Your task to perform on an android device: turn on the 12-hour format for clock Image 0: 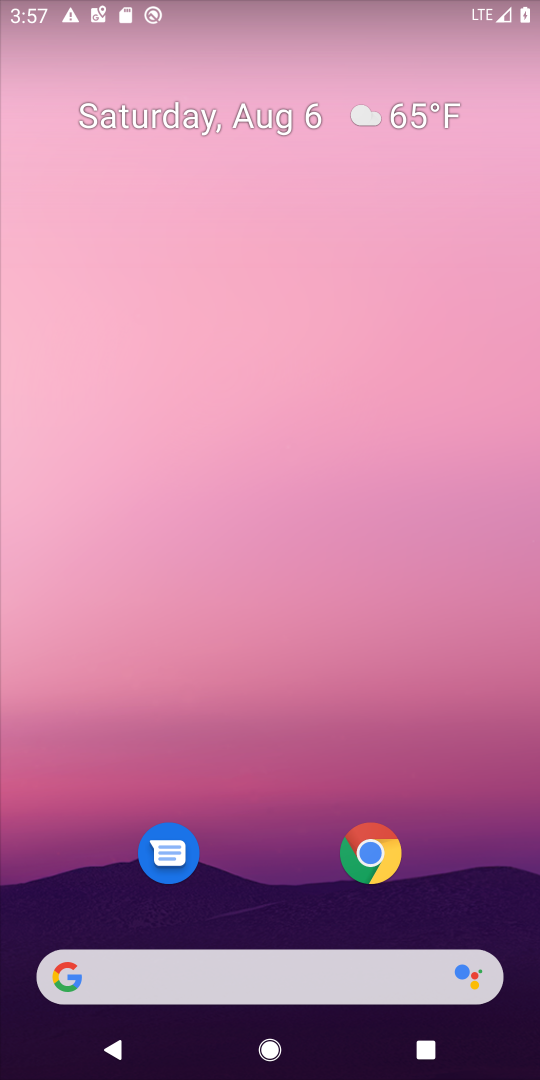
Step 0: drag from (266, 485) to (286, 58)
Your task to perform on an android device: turn on the 12-hour format for clock Image 1: 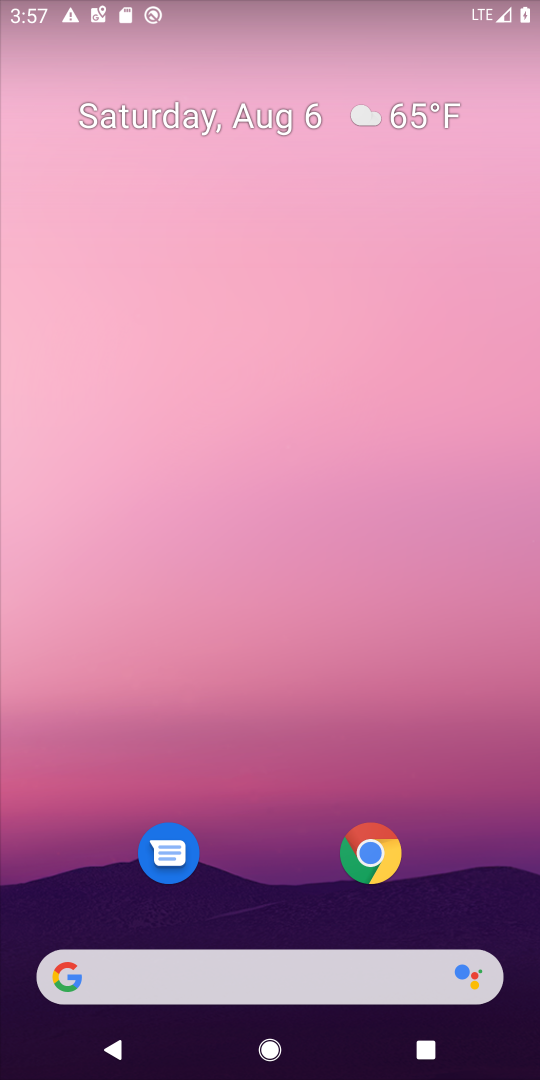
Step 1: drag from (279, 936) to (252, 46)
Your task to perform on an android device: turn on the 12-hour format for clock Image 2: 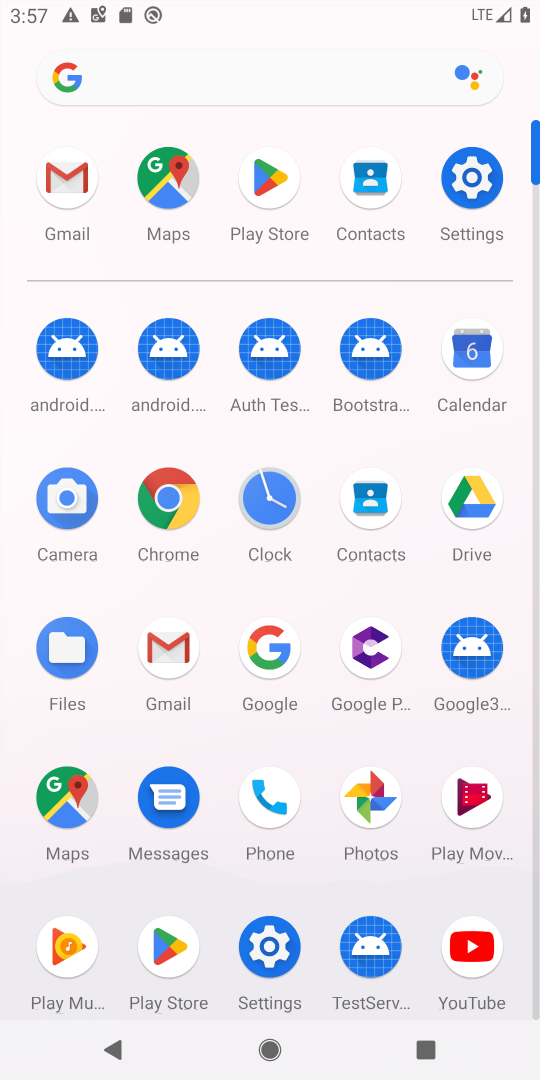
Step 2: click (270, 496)
Your task to perform on an android device: turn on the 12-hour format for clock Image 3: 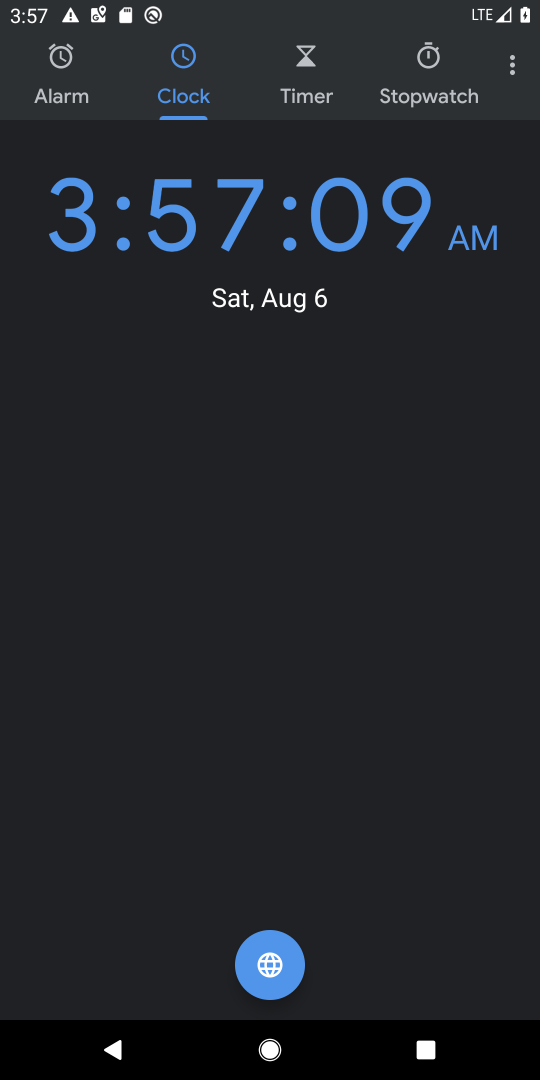
Step 3: click (516, 59)
Your task to perform on an android device: turn on the 12-hour format for clock Image 4: 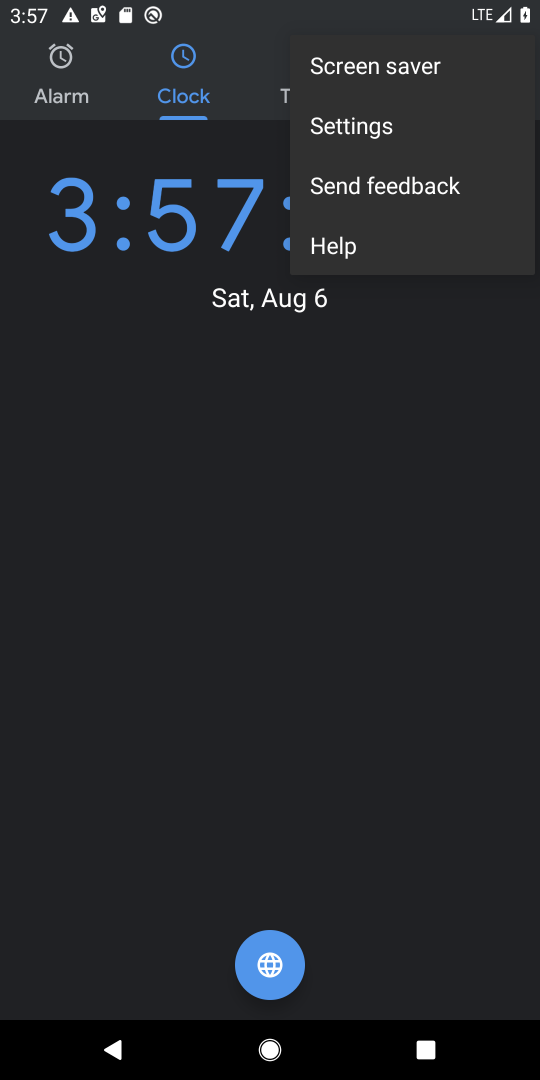
Step 4: click (373, 113)
Your task to perform on an android device: turn on the 12-hour format for clock Image 5: 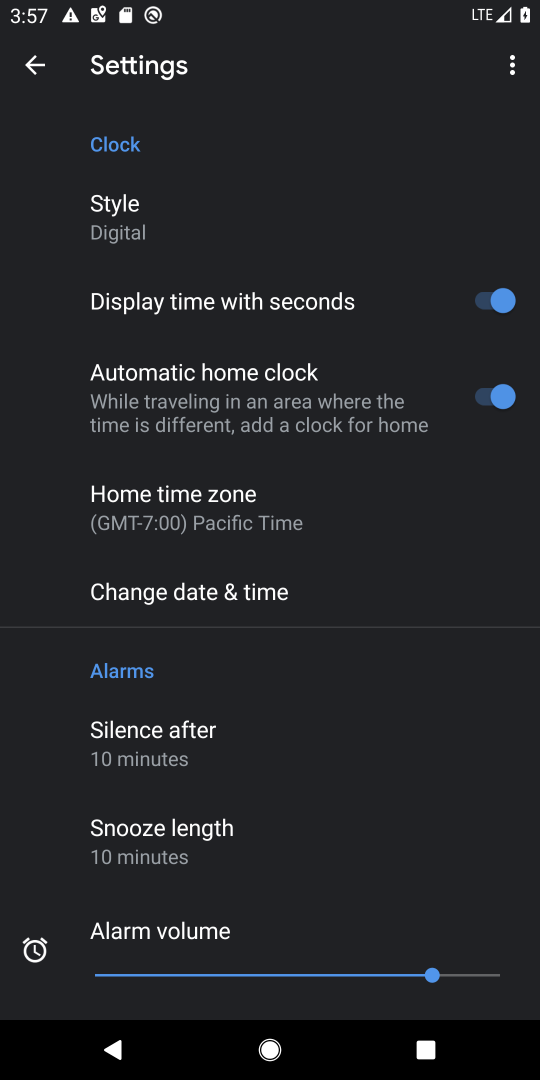
Step 5: click (186, 593)
Your task to perform on an android device: turn on the 12-hour format for clock Image 6: 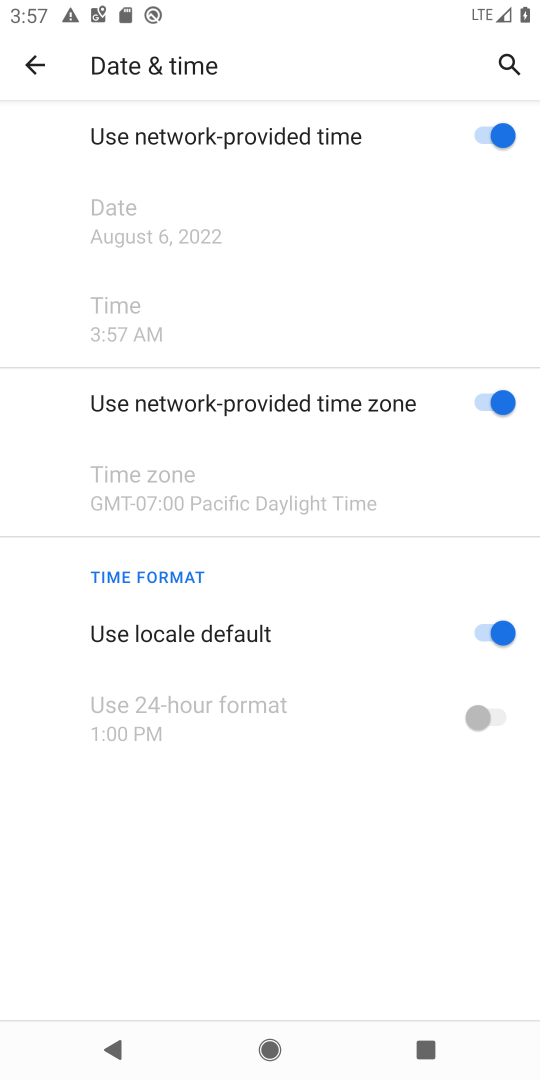
Step 6: click (503, 624)
Your task to perform on an android device: turn on the 12-hour format for clock Image 7: 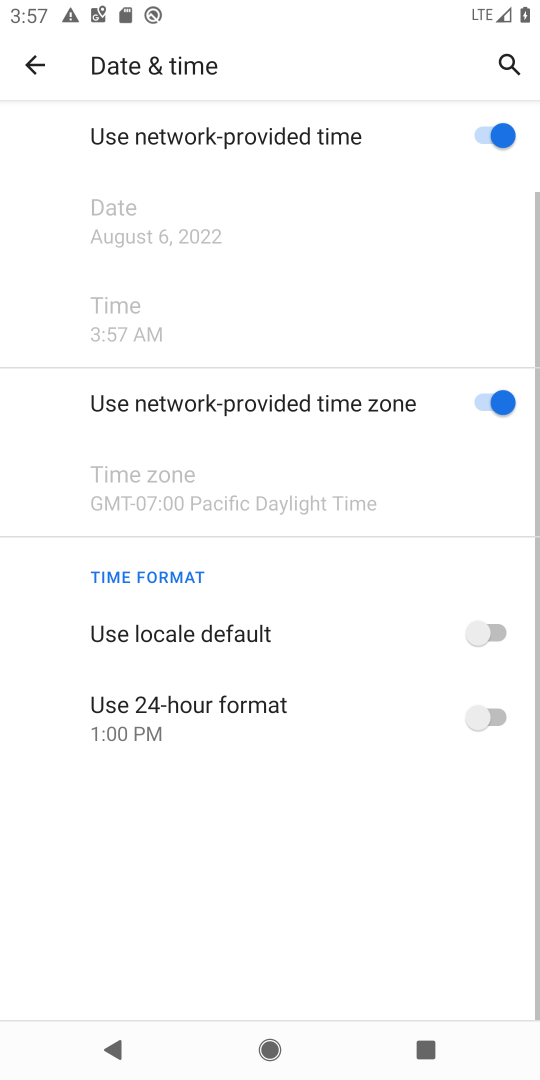
Step 7: click (489, 641)
Your task to perform on an android device: turn on the 12-hour format for clock Image 8: 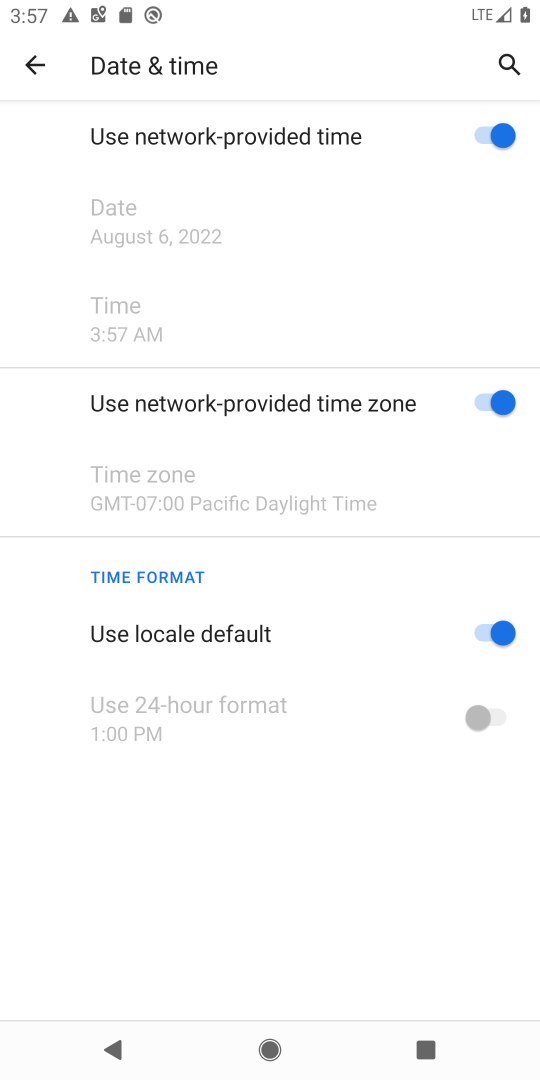
Step 8: task complete